Your task to perform on an android device: allow cookies in the chrome app Image 0: 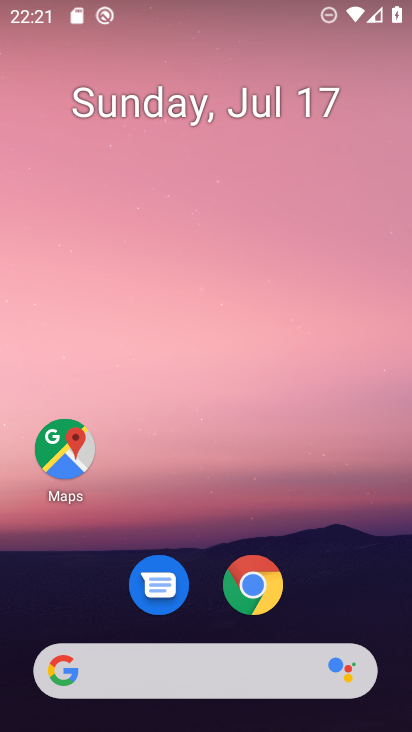
Step 0: press home button
Your task to perform on an android device: allow cookies in the chrome app Image 1: 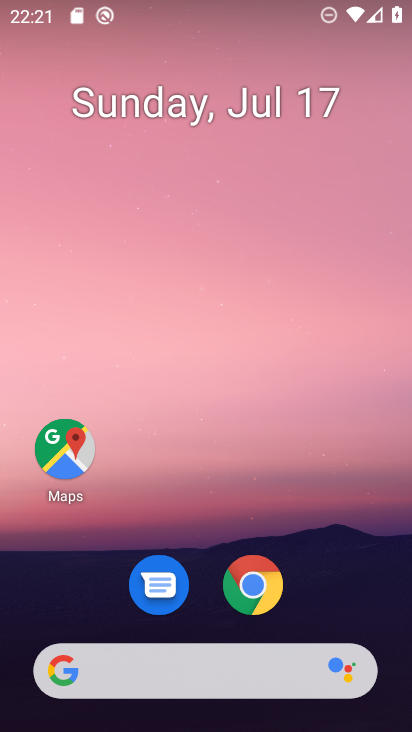
Step 1: click (250, 585)
Your task to perform on an android device: allow cookies in the chrome app Image 2: 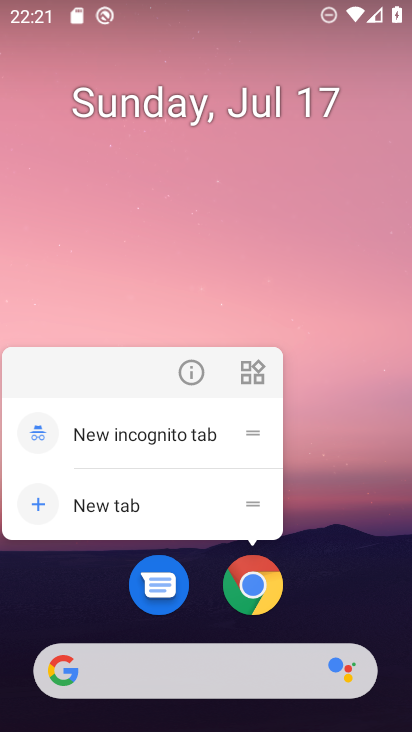
Step 2: click (250, 585)
Your task to perform on an android device: allow cookies in the chrome app Image 3: 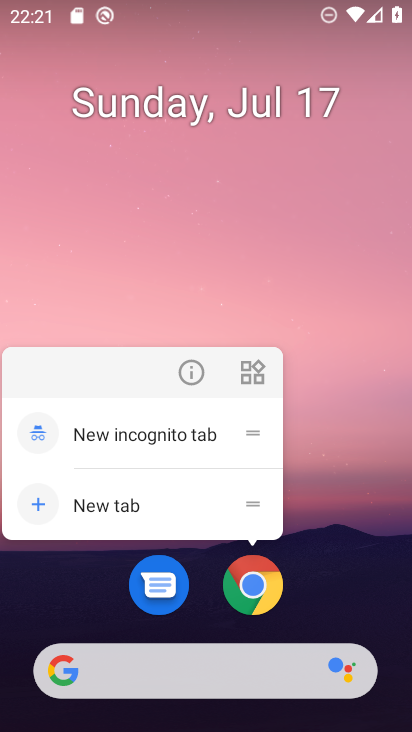
Step 3: click (250, 584)
Your task to perform on an android device: allow cookies in the chrome app Image 4: 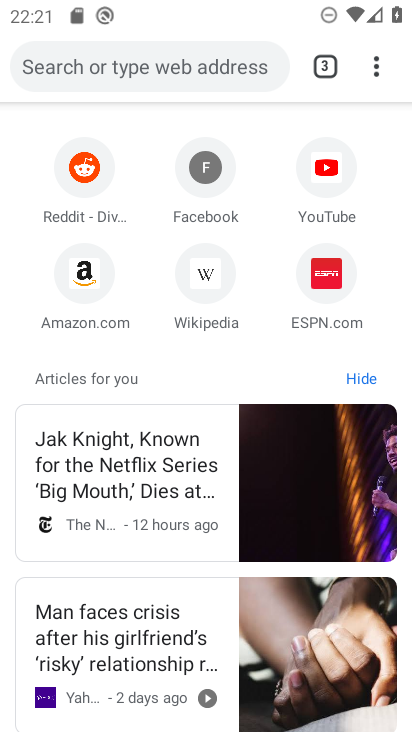
Step 4: drag from (372, 71) to (200, 556)
Your task to perform on an android device: allow cookies in the chrome app Image 5: 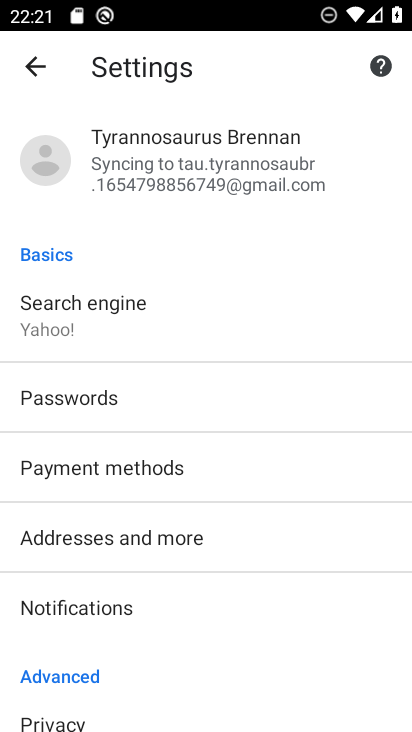
Step 5: drag from (157, 647) to (272, 377)
Your task to perform on an android device: allow cookies in the chrome app Image 6: 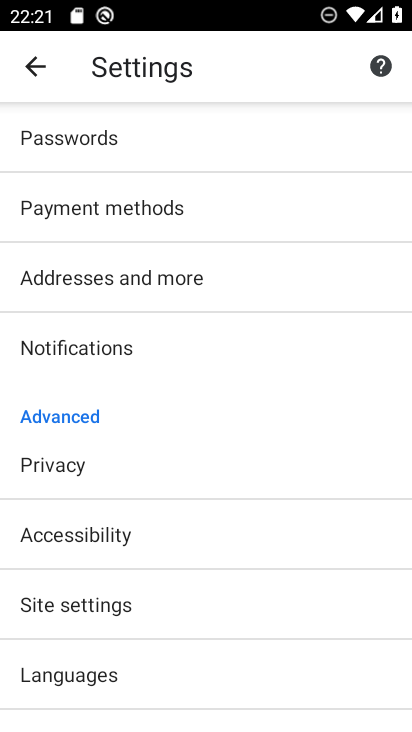
Step 6: click (120, 597)
Your task to perform on an android device: allow cookies in the chrome app Image 7: 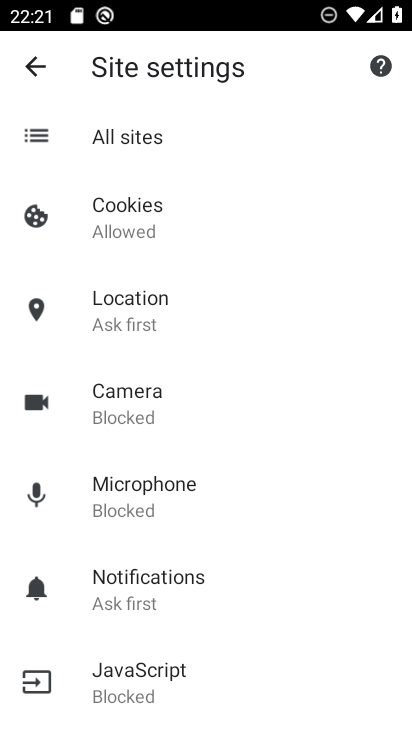
Step 7: click (120, 225)
Your task to perform on an android device: allow cookies in the chrome app Image 8: 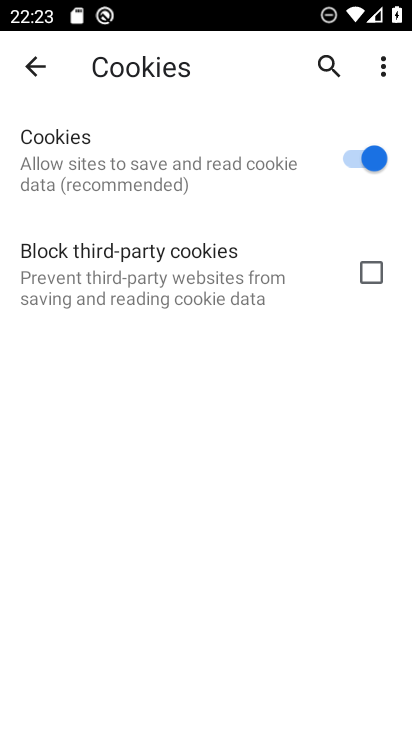
Step 8: task complete